Your task to perform on an android device: Open Android settings Image 0: 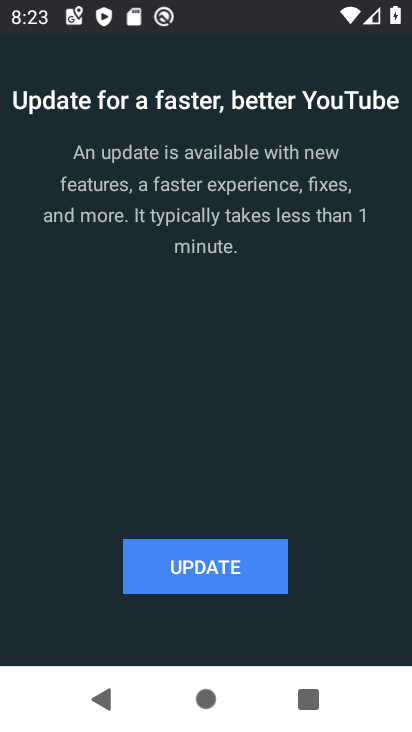
Step 0: press home button
Your task to perform on an android device: Open Android settings Image 1: 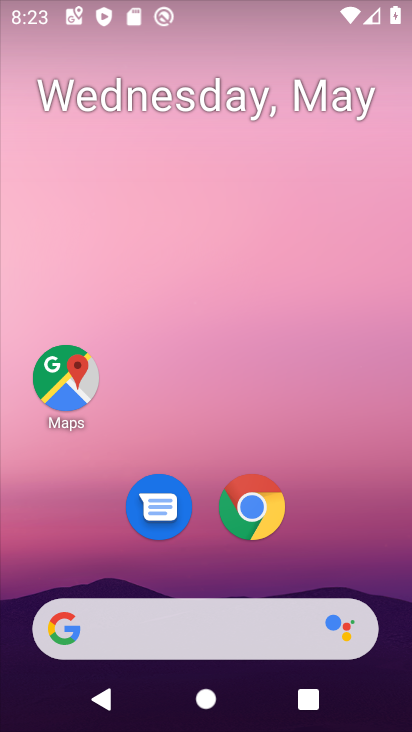
Step 1: drag from (211, 482) to (212, 200)
Your task to perform on an android device: Open Android settings Image 2: 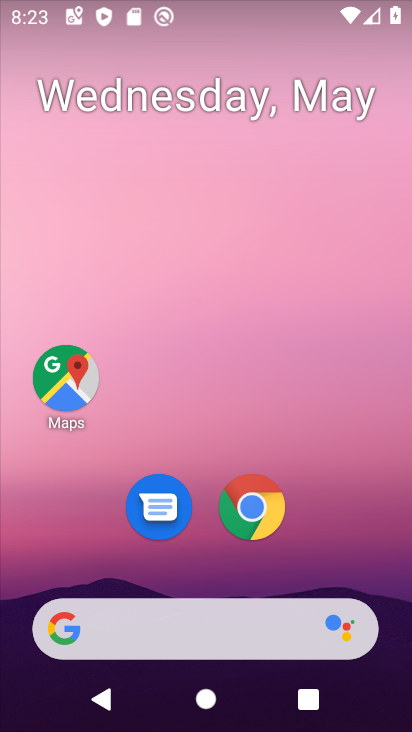
Step 2: drag from (196, 567) to (260, 188)
Your task to perform on an android device: Open Android settings Image 3: 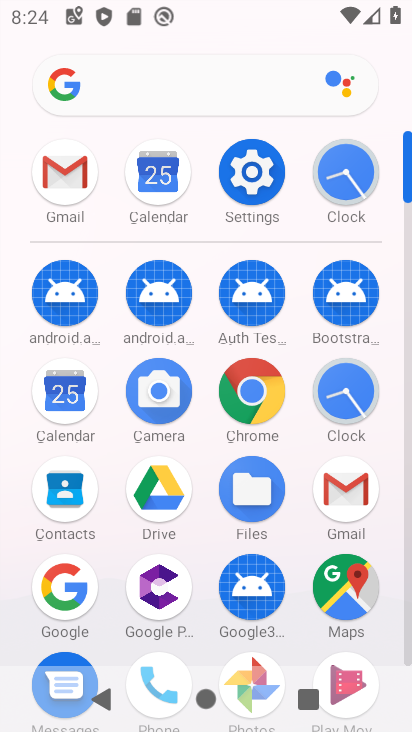
Step 3: click (255, 167)
Your task to perform on an android device: Open Android settings Image 4: 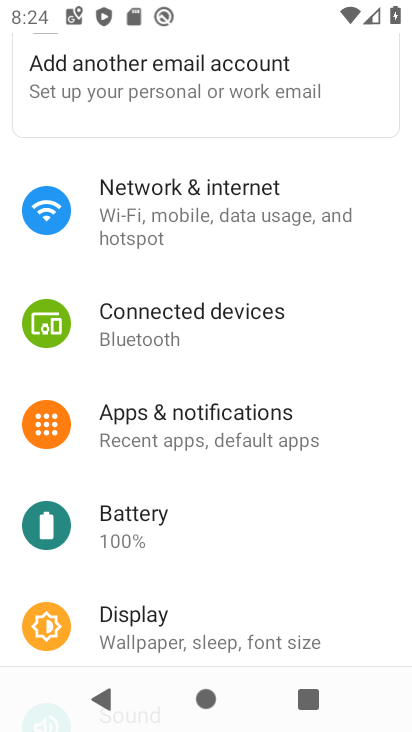
Step 4: task complete